Your task to perform on an android device: delete the emails in spam in the gmail app Image 0: 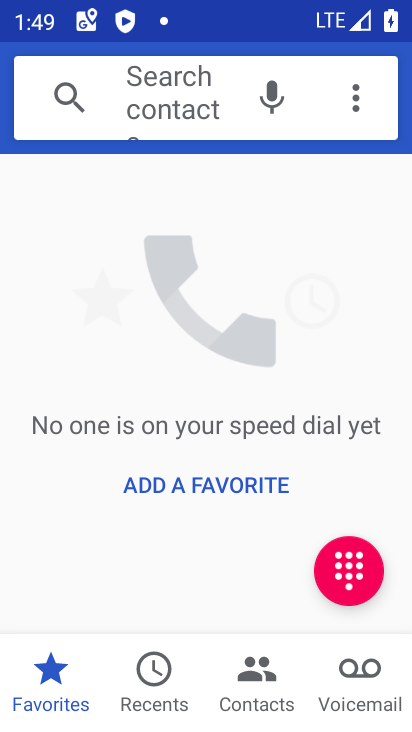
Step 0: press home button
Your task to perform on an android device: delete the emails in spam in the gmail app Image 1: 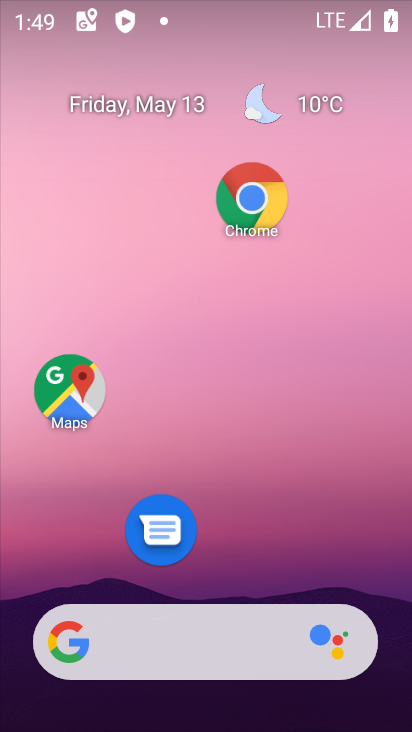
Step 1: drag from (175, 583) to (174, 10)
Your task to perform on an android device: delete the emails in spam in the gmail app Image 2: 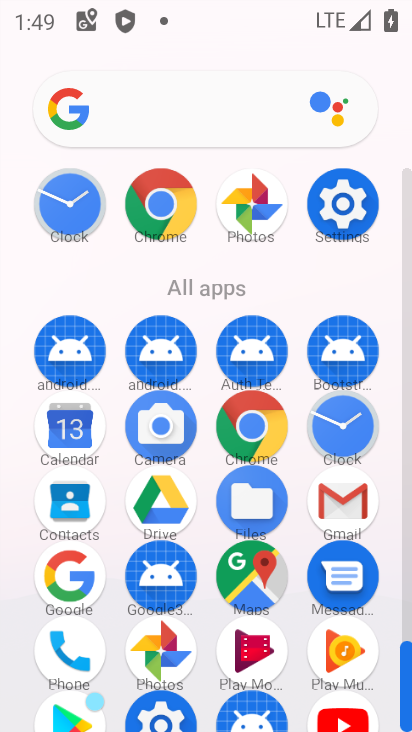
Step 2: click (347, 506)
Your task to perform on an android device: delete the emails in spam in the gmail app Image 3: 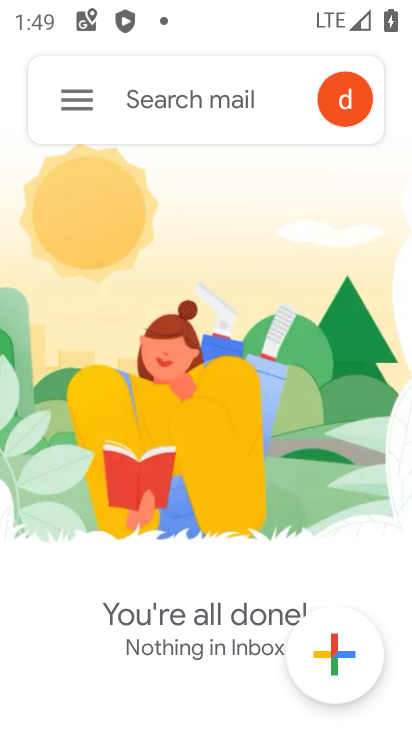
Step 3: click (62, 80)
Your task to perform on an android device: delete the emails in spam in the gmail app Image 4: 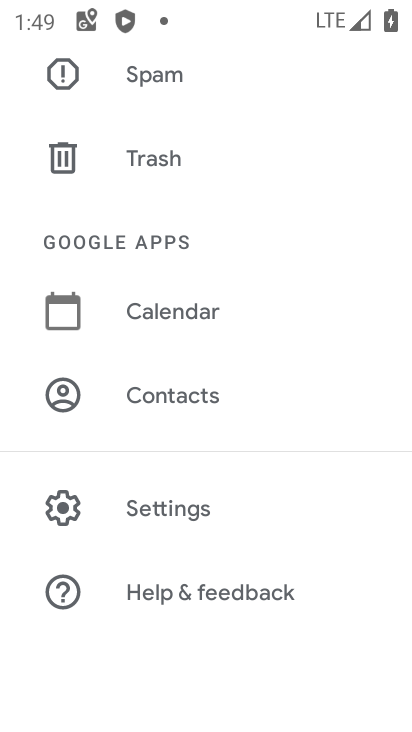
Step 4: drag from (147, 160) to (129, 497)
Your task to perform on an android device: delete the emails in spam in the gmail app Image 5: 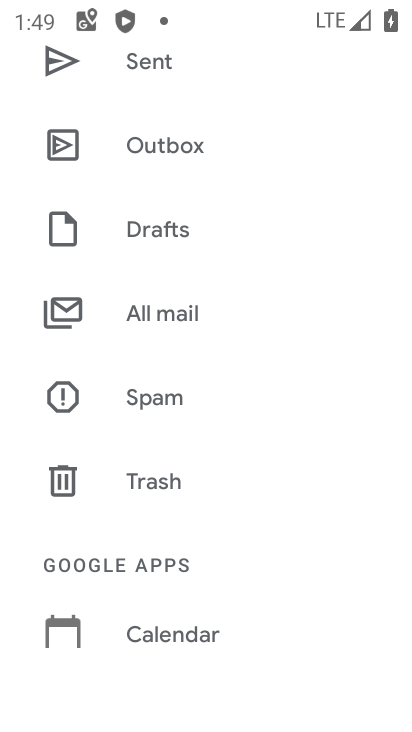
Step 5: click (158, 385)
Your task to perform on an android device: delete the emails in spam in the gmail app Image 6: 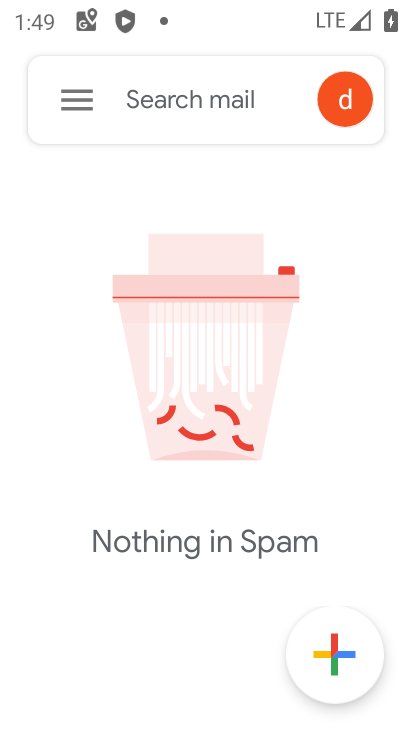
Step 6: task complete